Your task to perform on an android device: What is the recent news? Image 0: 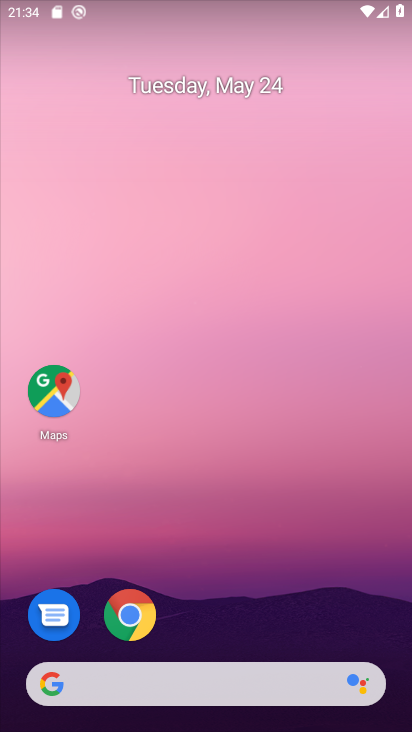
Step 0: click (130, 610)
Your task to perform on an android device: What is the recent news? Image 1: 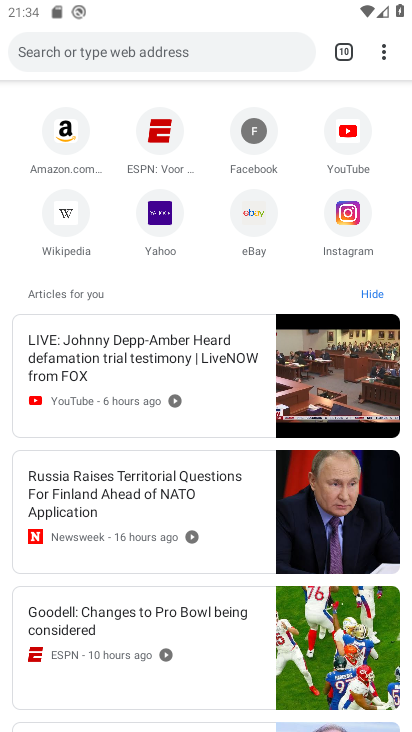
Step 1: click (157, 48)
Your task to perform on an android device: What is the recent news? Image 2: 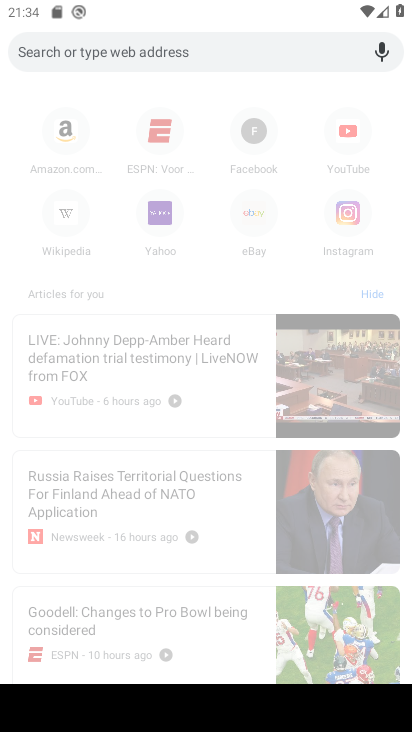
Step 2: type "What is the recent news?"
Your task to perform on an android device: What is the recent news? Image 3: 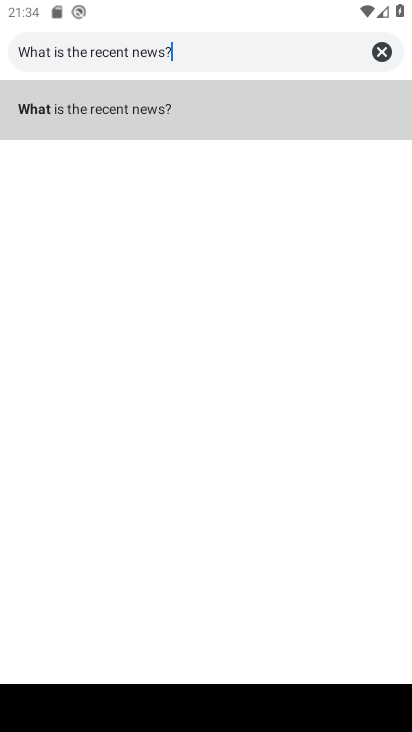
Step 3: click (142, 118)
Your task to perform on an android device: What is the recent news? Image 4: 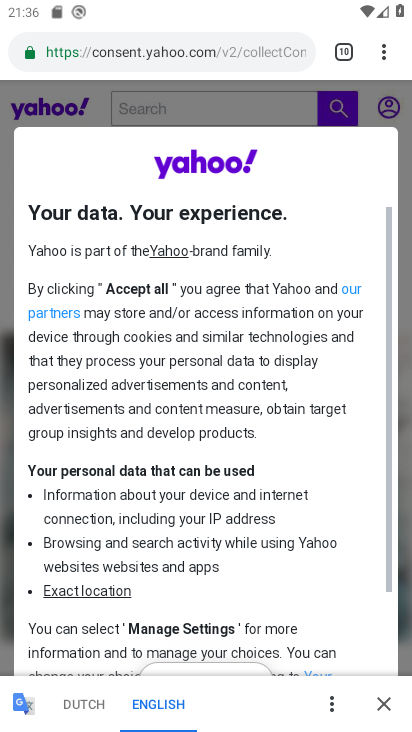
Step 4: task complete